Your task to perform on an android device: delete browsing data in the chrome app Image 0: 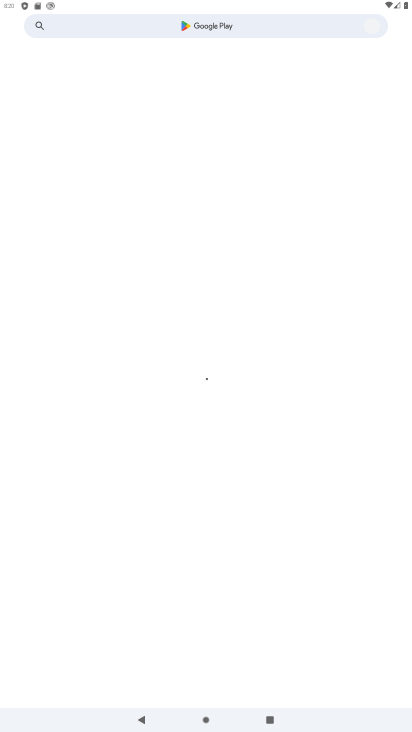
Step 0: press home button
Your task to perform on an android device: delete browsing data in the chrome app Image 1: 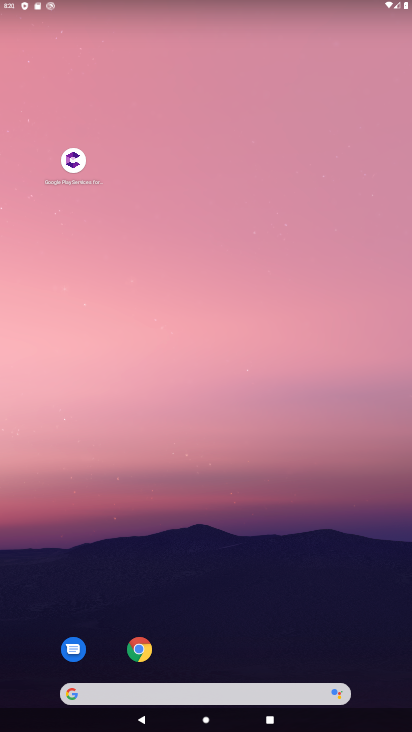
Step 1: click (142, 652)
Your task to perform on an android device: delete browsing data in the chrome app Image 2: 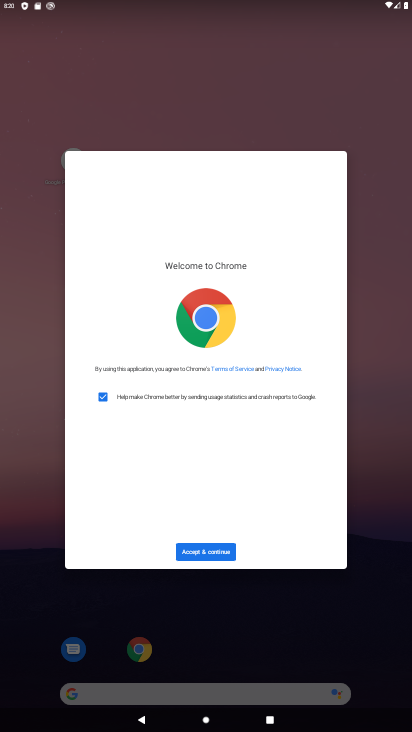
Step 2: click (219, 547)
Your task to perform on an android device: delete browsing data in the chrome app Image 3: 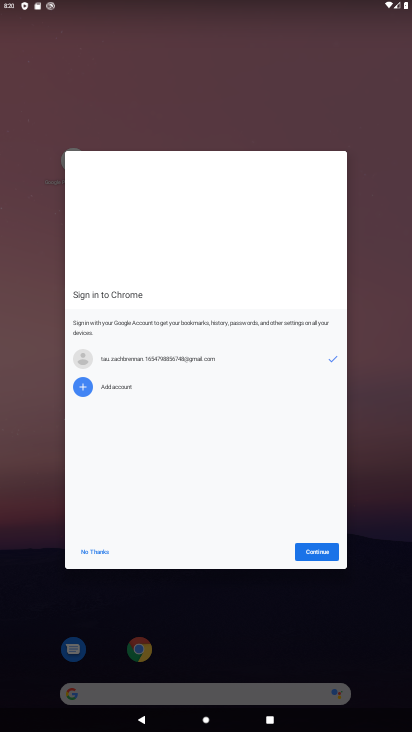
Step 3: click (321, 549)
Your task to perform on an android device: delete browsing data in the chrome app Image 4: 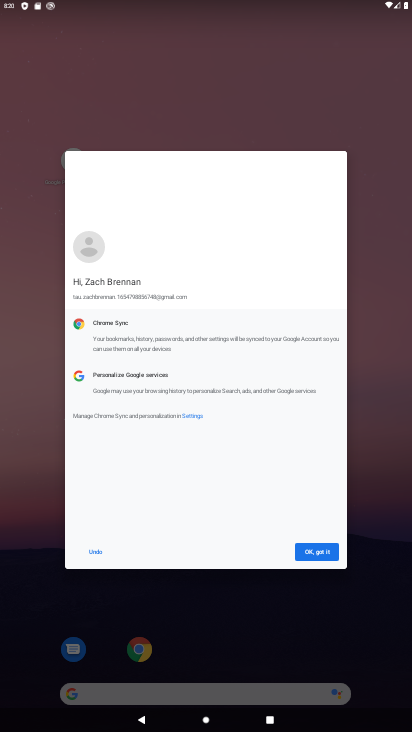
Step 4: click (313, 551)
Your task to perform on an android device: delete browsing data in the chrome app Image 5: 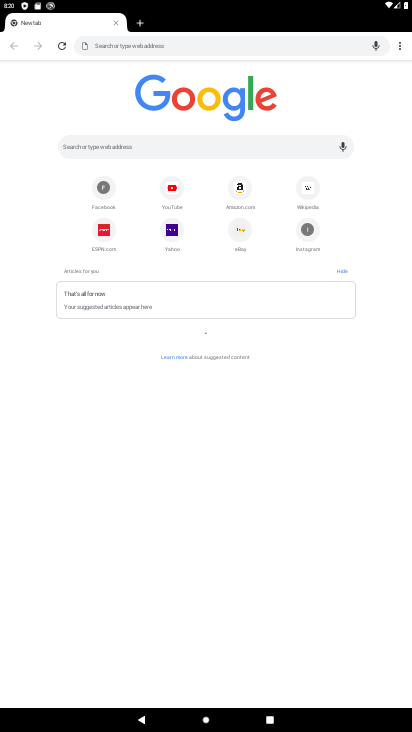
Step 5: click (394, 49)
Your task to perform on an android device: delete browsing data in the chrome app Image 6: 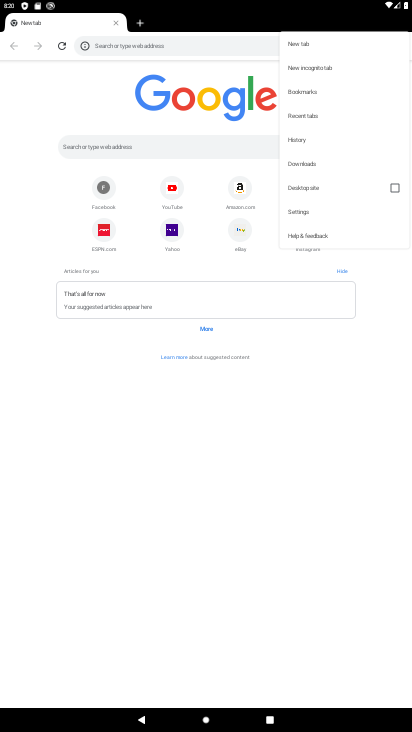
Step 6: click (306, 216)
Your task to perform on an android device: delete browsing data in the chrome app Image 7: 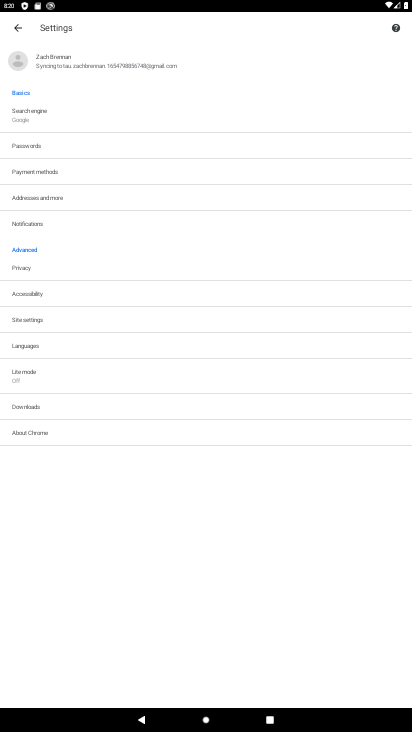
Step 7: click (27, 268)
Your task to perform on an android device: delete browsing data in the chrome app Image 8: 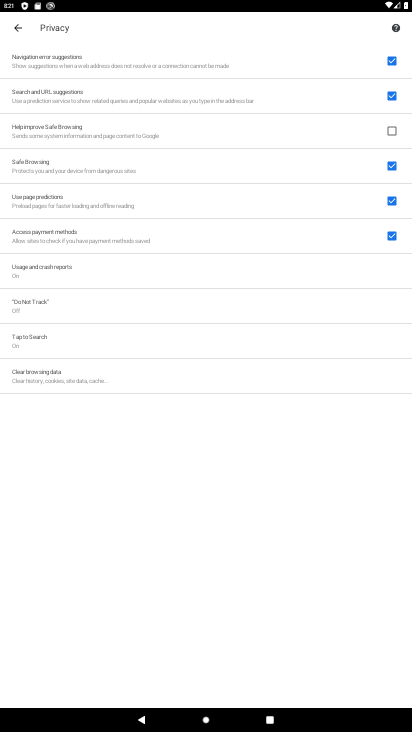
Step 8: click (77, 380)
Your task to perform on an android device: delete browsing data in the chrome app Image 9: 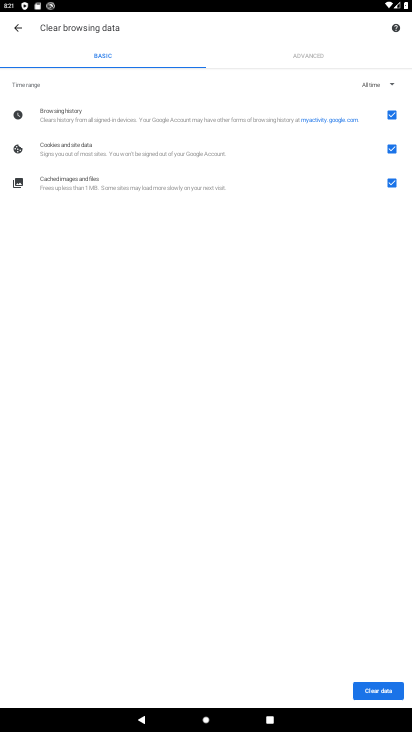
Step 9: click (386, 698)
Your task to perform on an android device: delete browsing data in the chrome app Image 10: 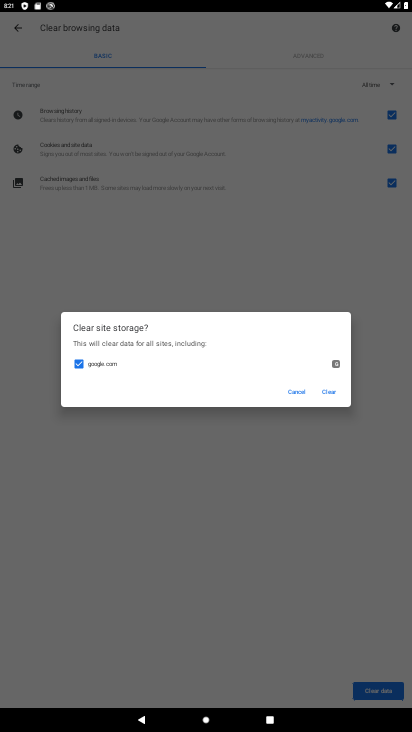
Step 10: click (328, 393)
Your task to perform on an android device: delete browsing data in the chrome app Image 11: 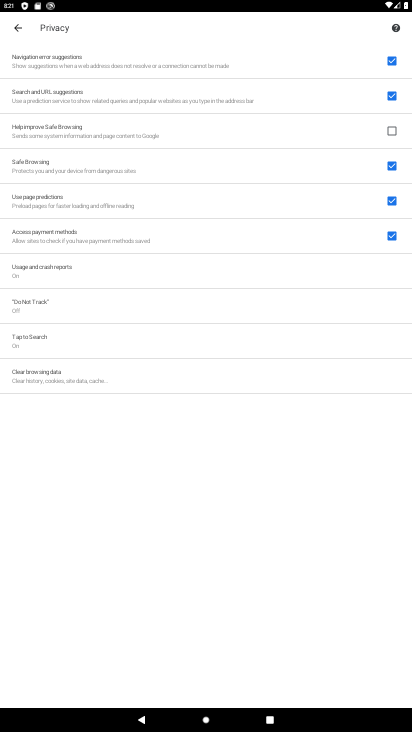
Step 11: task complete